Your task to perform on an android device: Is it going to rain tomorrow? Image 0: 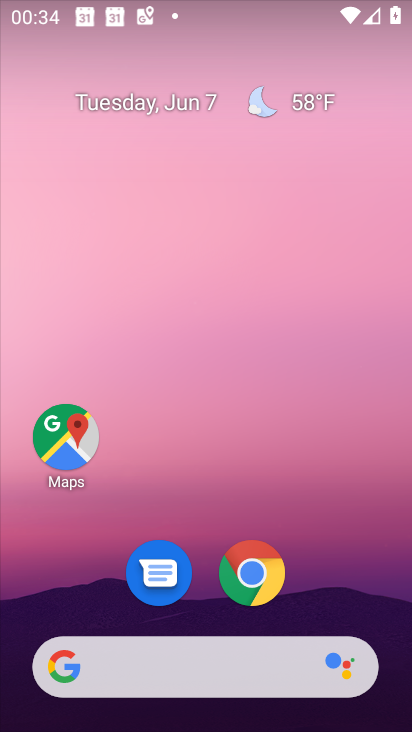
Step 0: press home button
Your task to perform on an android device: Is it going to rain tomorrow? Image 1: 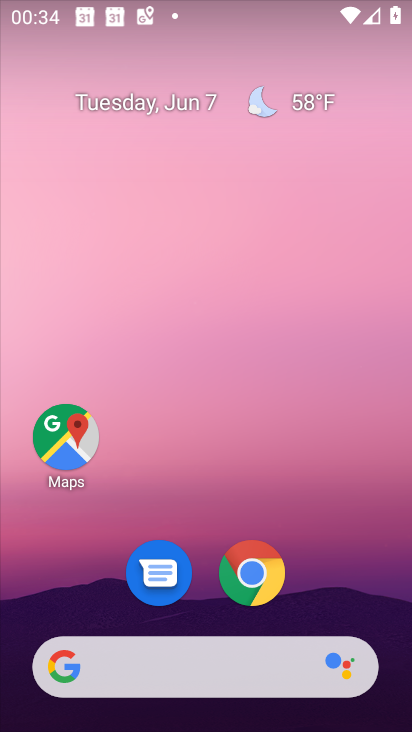
Step 1: click (245, 584)
Your task to perform on an android device: Is it going to rain tomorrow? Image 2: 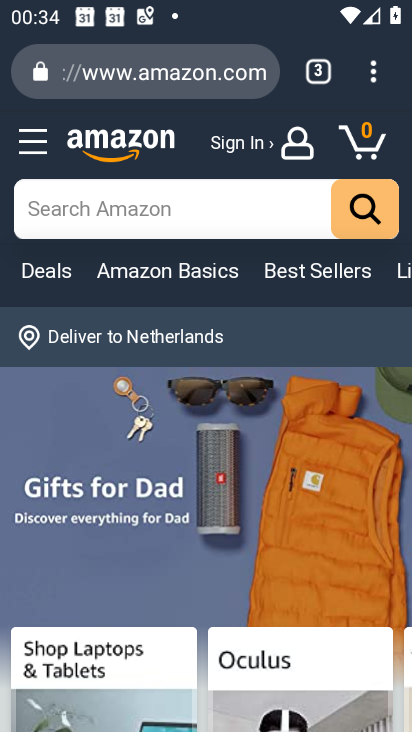
Step 2: click (222, 74)
Your task to perform on an android device: Is it going to rain tomorrow? Image 3: 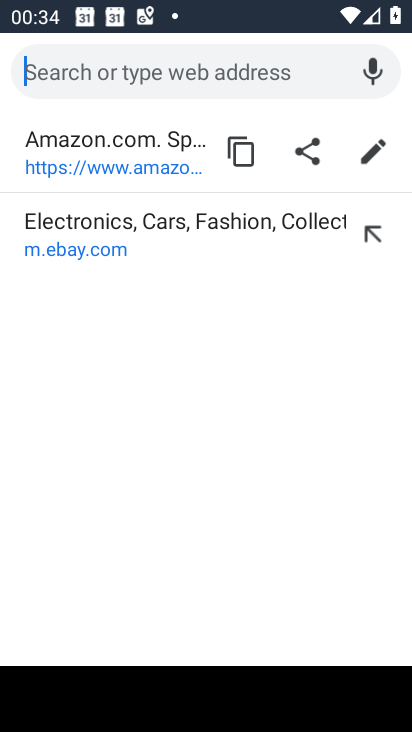
Step 3: type "Is it going to rain tomorrow?"
Your task to perform on an android device: Is it going to rain tomorrow? Image 4: 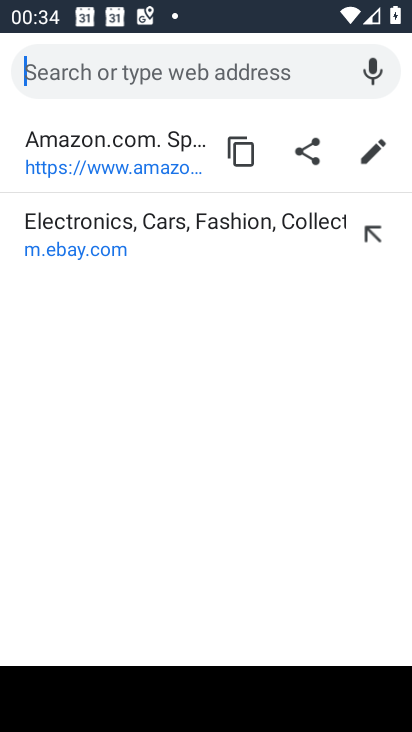
Step 4: click (259, 171)
Your task to perform on an android device: Is it going to rain tomorrow? Image 5: 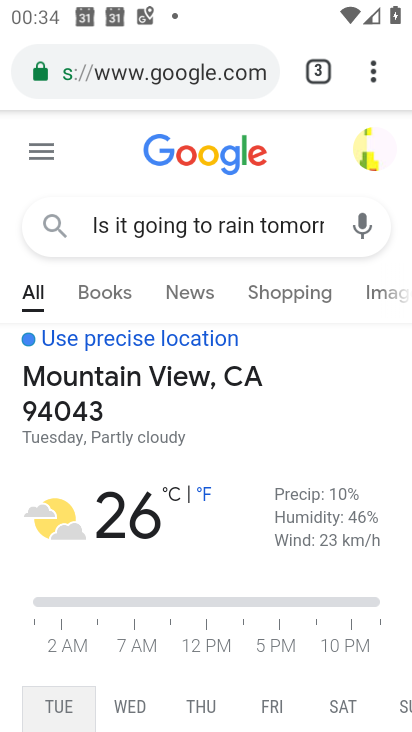
Step 5: task complete